Your task to perform on an android device: What's the weather today? Image 0: 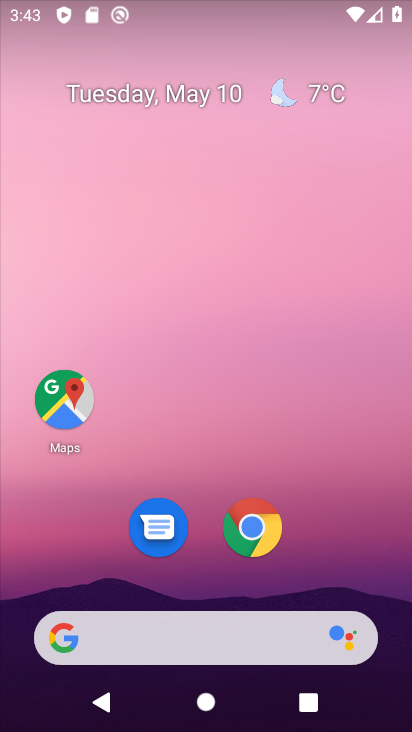
Step 0: click (207, 635)
Your task to perform on an android device: What's the weather today? Image 1: 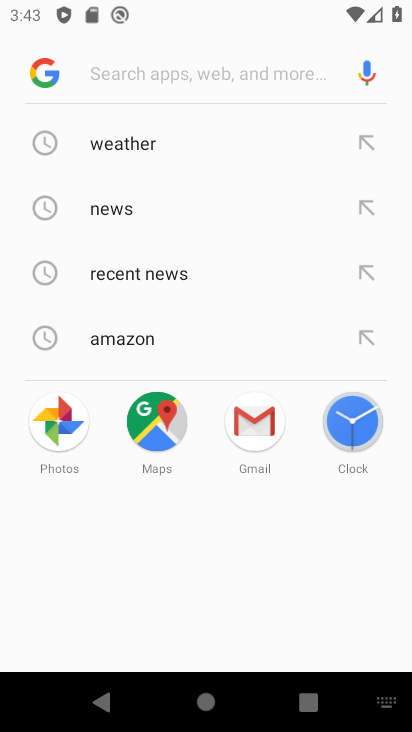
Step 1: click (131, 144)
Your task to perform on an android device: What's the weather today? Image 2: 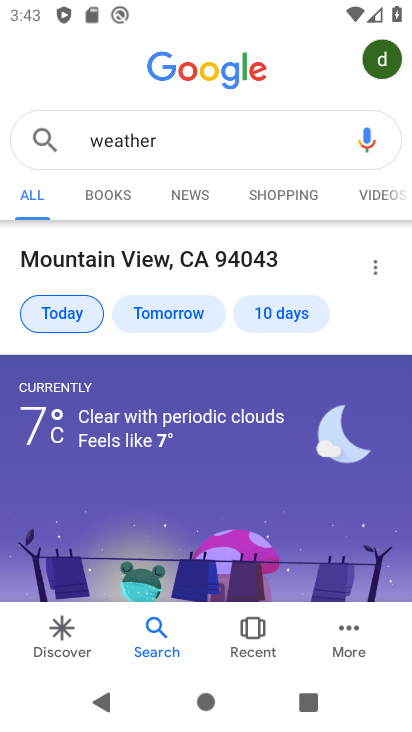
Step 2: task complete